Your task to perform on an android device: turn notification dots on Image 0: 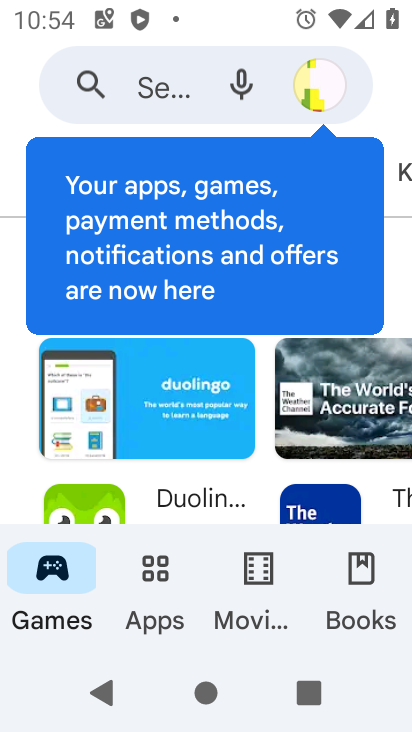
Step 0: press home button
Your task to perform on an android device: turn notification dots on Image 1: 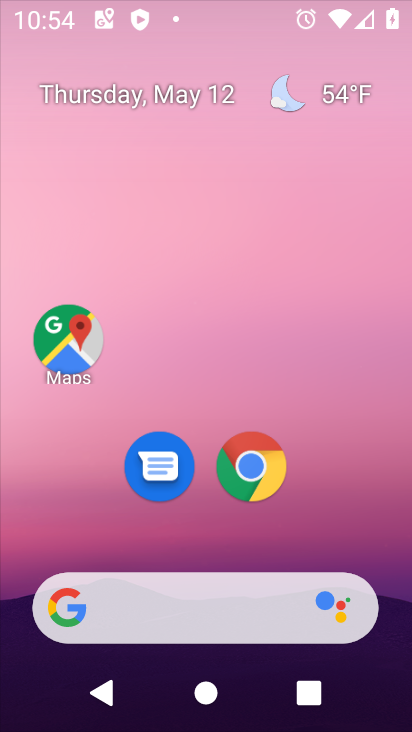
Step 1: drag from (367, 529) to (379, 73)
Your task to perform on an android device: turn notification dots on Image 2: 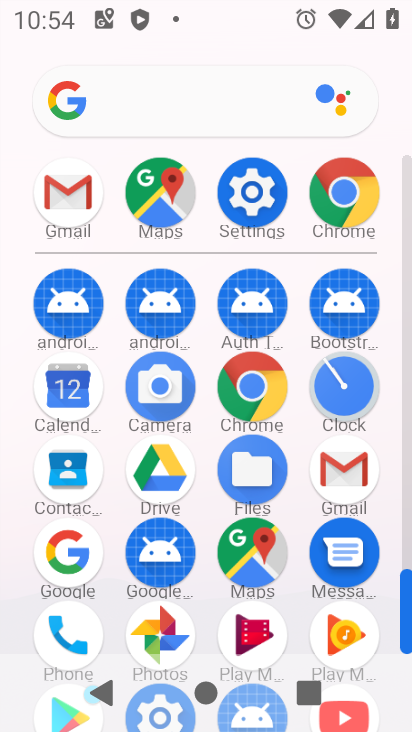
Step 2: click (268, 210)
Your task to perform on an android device: turn notification dots on Image 3: 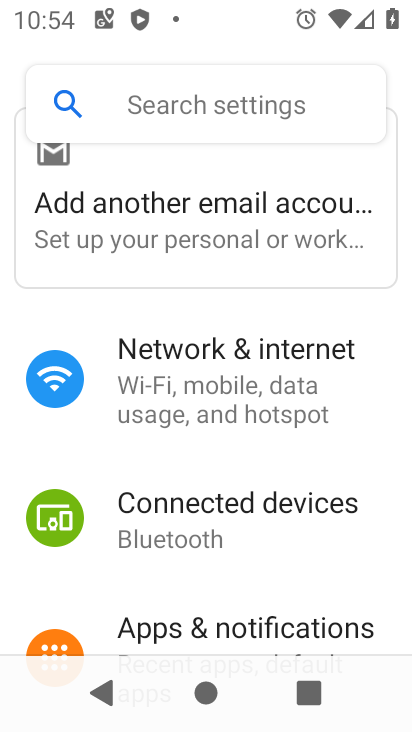
Step 3: drag from (252, 553) to (262, 286)
Your task to perform on an android device: turn notification dots on Image 4: 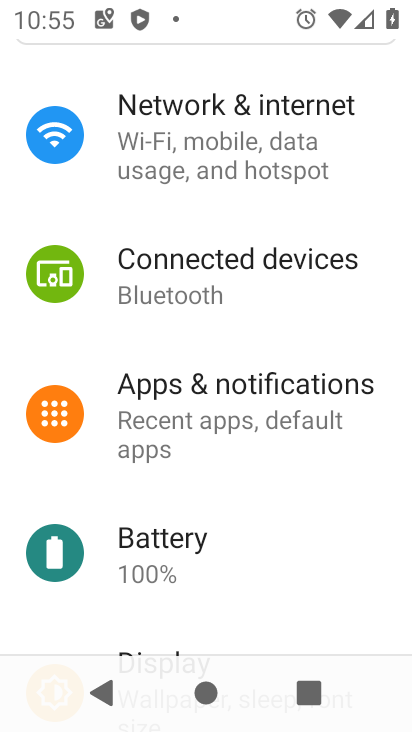
Step 4: click (238, 412)
Your task to perform on an android device: turn notification dots on Image 5: 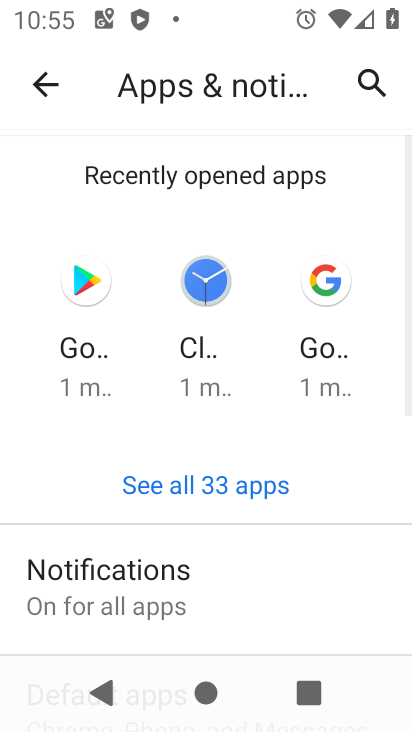
Step 5: click (134, 592)
Your task to perform on an android device: turn notification dots on Image 6: 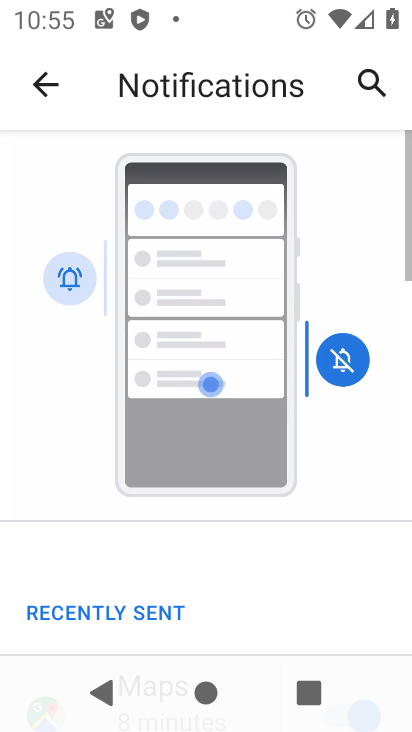
Step 6: drag from (255, 600) to (306, 248)
Your task to perform on an android device: turn notification dots on Image 7: 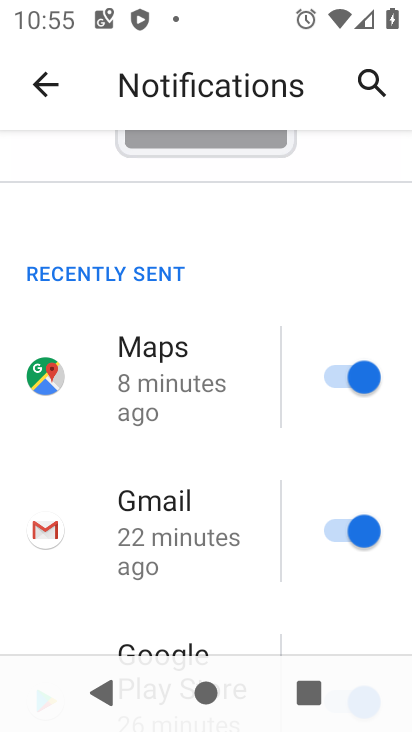
Step 7: drag from (216, 624) to (303, 242)
Your task to perform on an android device: turn notification dots on Image 8: 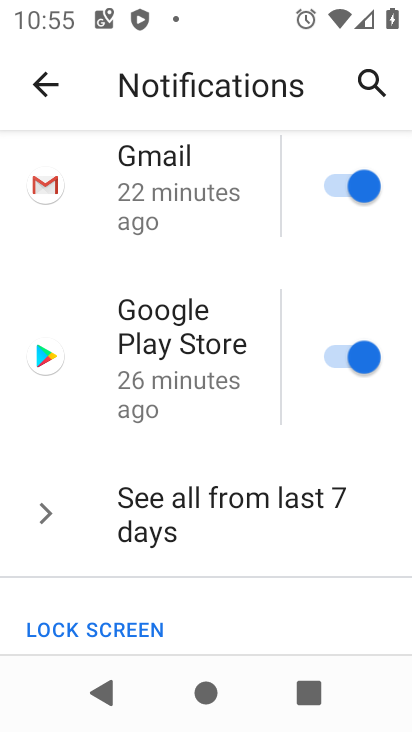
Step 8: drag from (230, 604) to (246, 234)
Your task to perform on an android device: turn notification dots on Image 9: 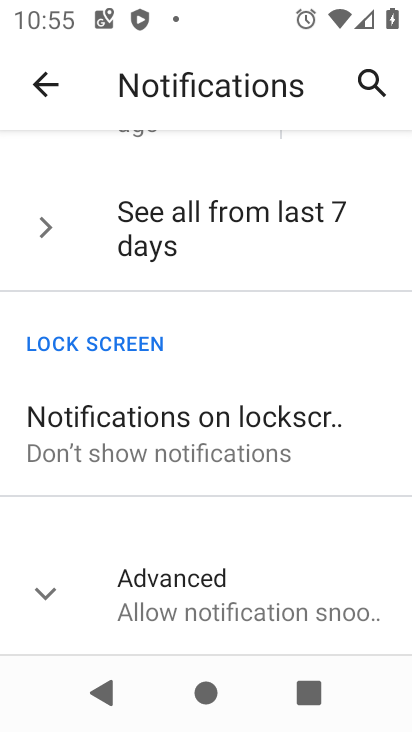
Step 9: drag from (247, 548) to (284, 241)
Your task to perform on an android device: turn notification dots on Image 10: 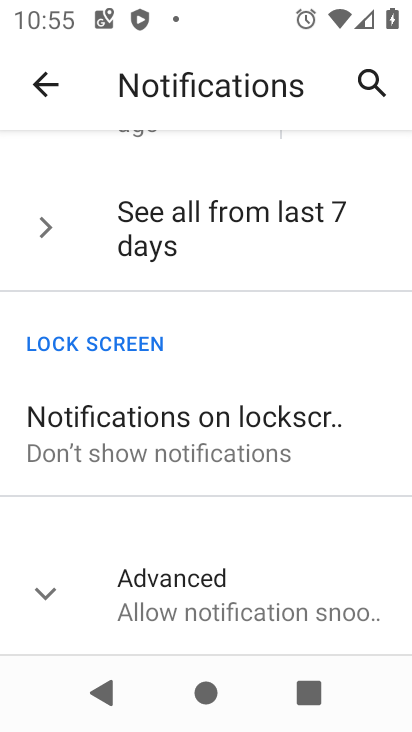
Step 10: click (273, 569)
Your task to perform on an android device: turn notification dots on Image 11: 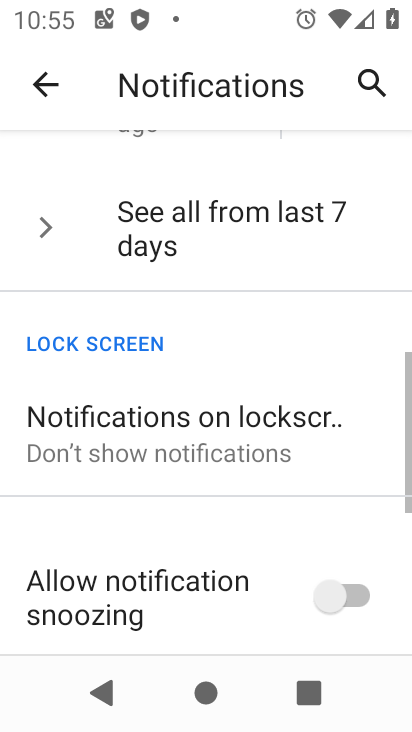
Step 11: task complete